Your task to perform on an android device: open device folders in google photos Image 0: 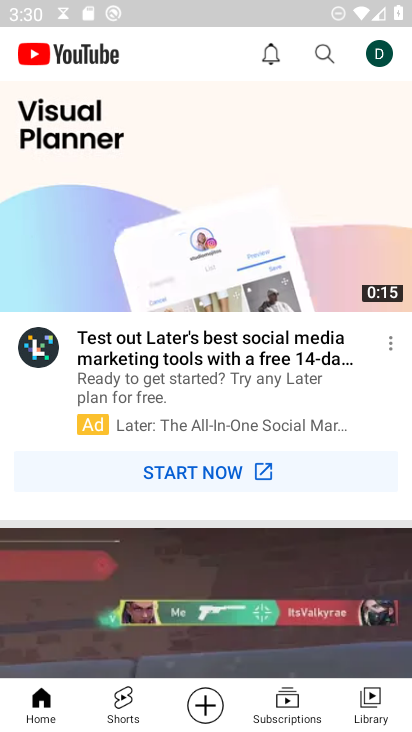
Step 0: press home button
Your task to perform on an android device: open device folders in google photos Image 1: 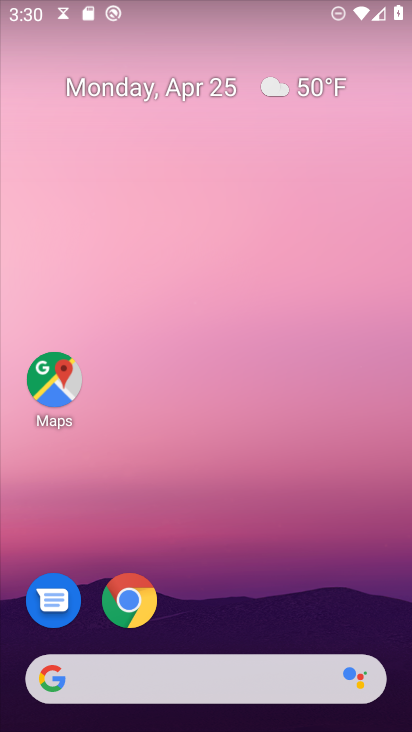
Step 1: drag from (195, 642) to (305, 6)
Your task to perform on an android device: open device folders in google photos Image 2: 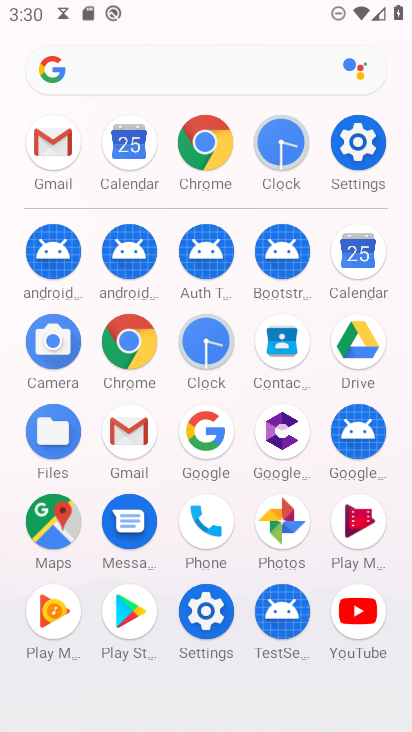
Step 2: click (279, 529)
Your task to perform on an android device: open device folders in google photos Image 3: 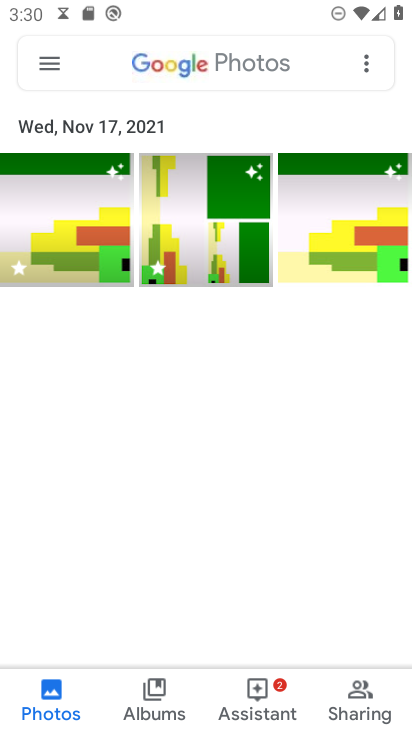
Step 3: click (38, 62)
Your task to perform on an android device: open device folders in google photos Image 4: 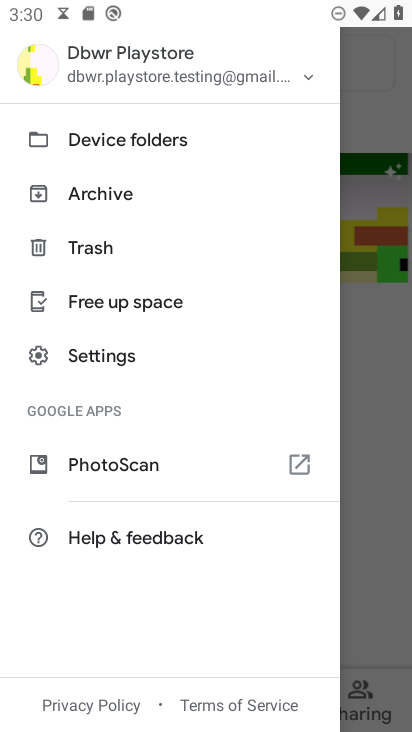
Step 4: click (77, 136)
Your task to perform on an android device: open device folders in google photos Image 5: 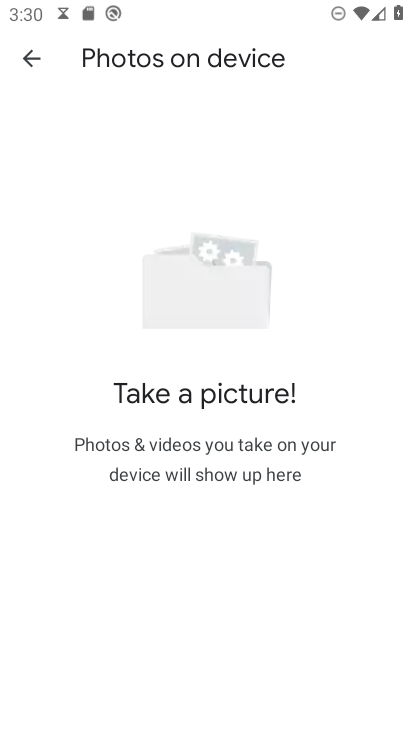
Step 5: task complete